Your task to perform on an android device: Open the web browser Image 0: 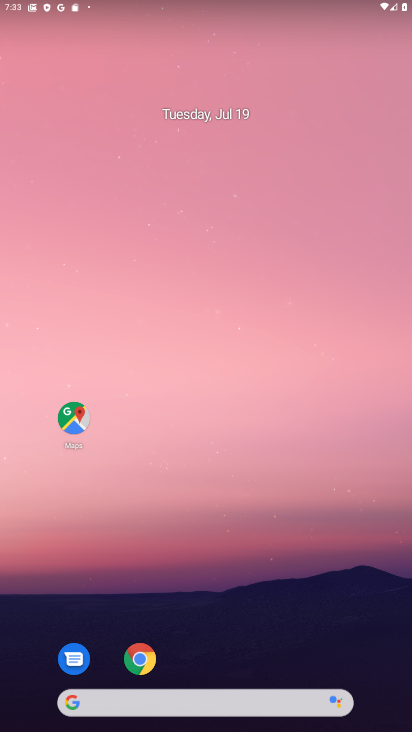
Step 0: click (144, 656)
Your task to perform on an android device: Open the web browser Image 1: 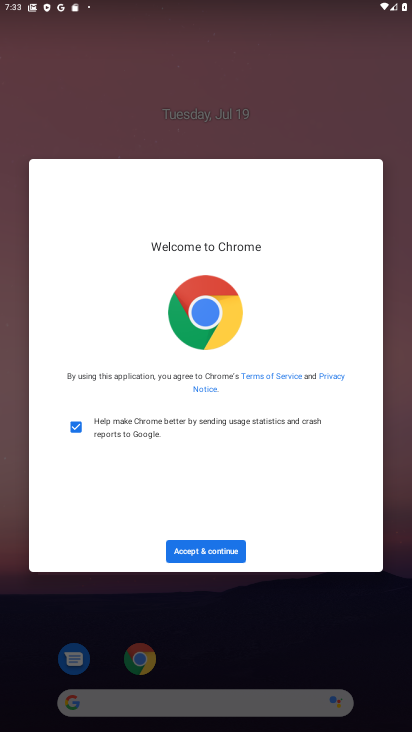
Step 1: click (193, 550)
Your task to perform on an android device: Open the web browser Image 2: 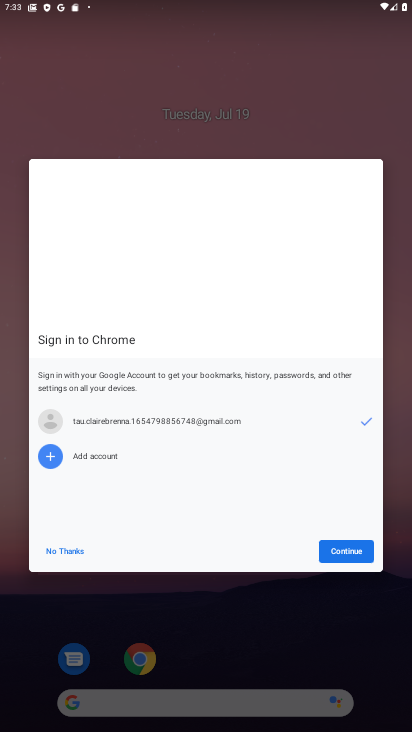
Step 2: click (340, 557)
Your task to perform on an android device: Open the web browser Image 3: 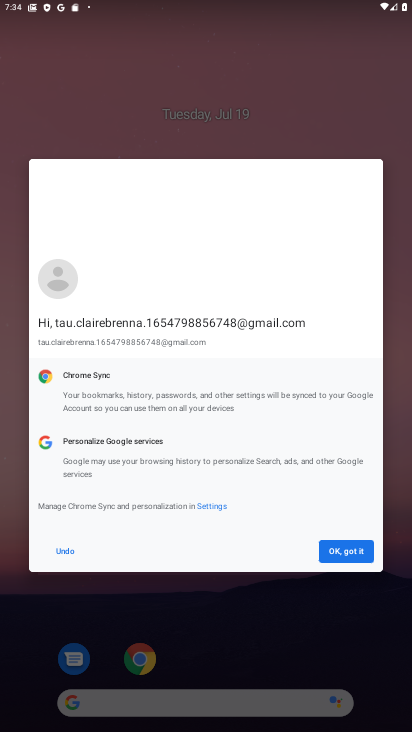
Step 3: click (340, 556)
Your task to perform on an android device: Open the web browser Image 4: 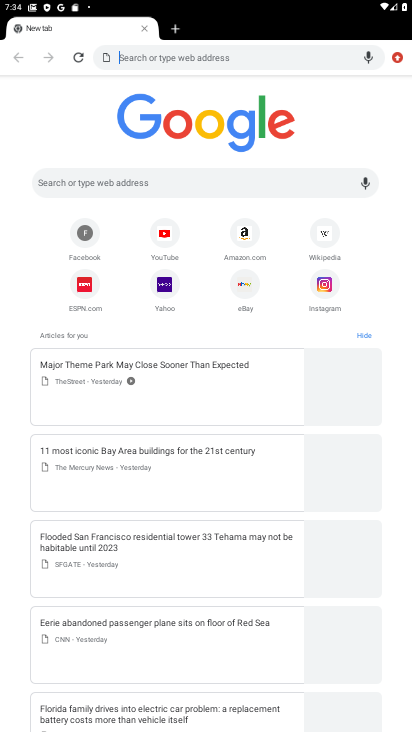
Step 4: task complete